Your task to perform on an android device: open device folders in google photos Image 0: 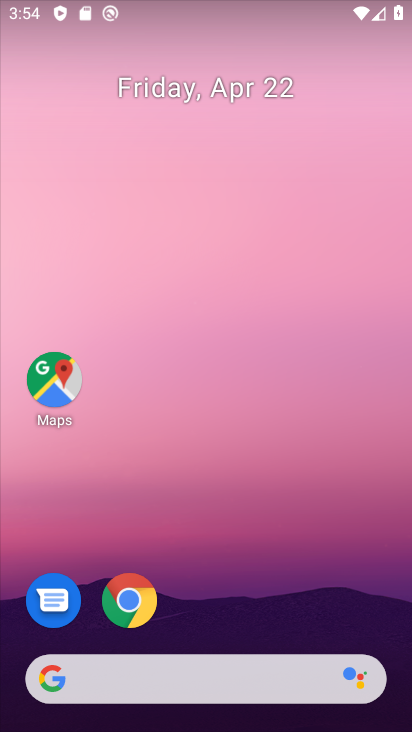
Step 0: drag from (209, 524) to (290, 55)
Your task to perform on an android device: open device folders in google photos Image 1: 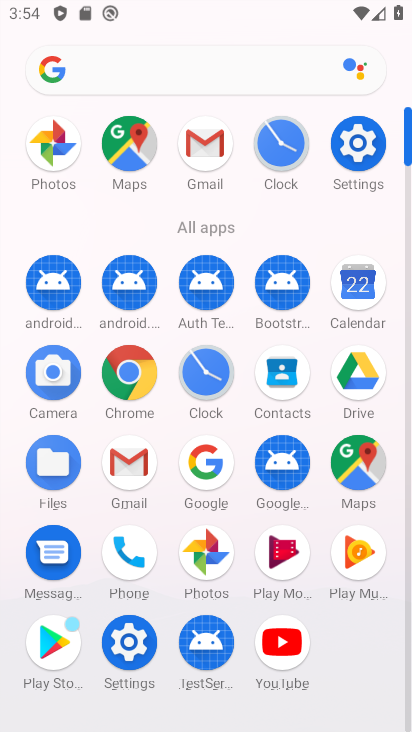
Step 1: click (51, 140)
Your task to perform on an android device: open device folders in google photos Image 2: 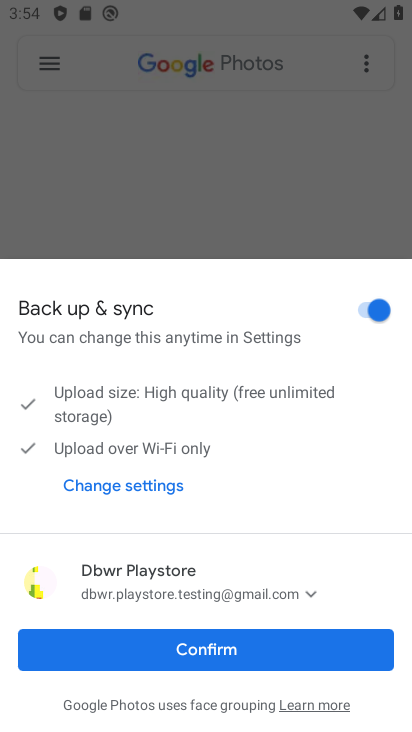
Step 2: click (213, 650)
Your task to perform on an android device: open device folders in google photos Image 3: 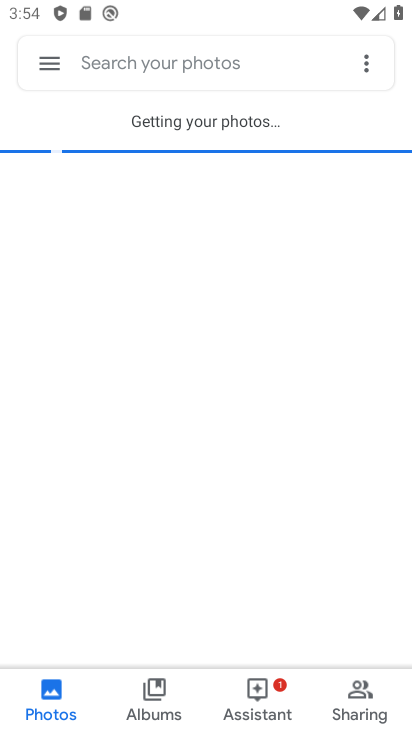
Step 3: click (48, 62)
Your task to perform on an android device: open device folders in google photos Image 4: 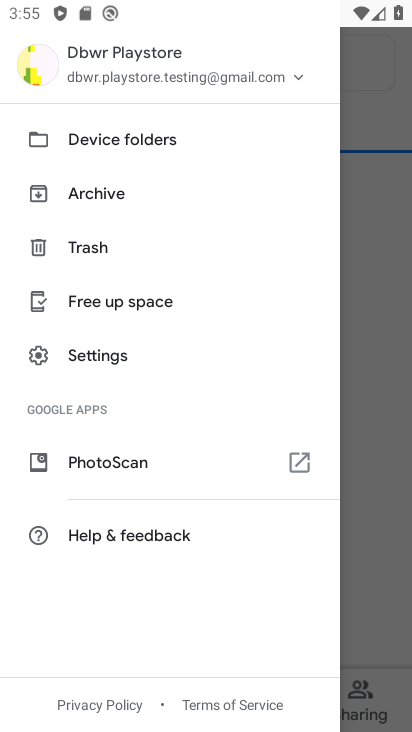
Step 4: click (90, 137)
Your task to perform on an android device: open device folders in google photos Image 5: 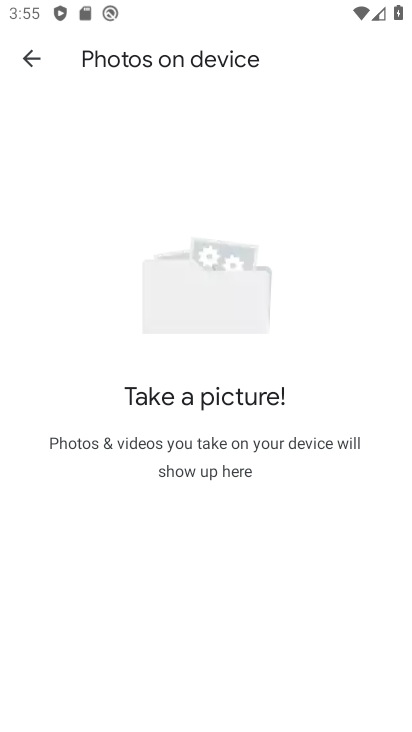
Step 5: task complete